Your task to perform on an android device: toggle show notifications on the lock screen Image 0: 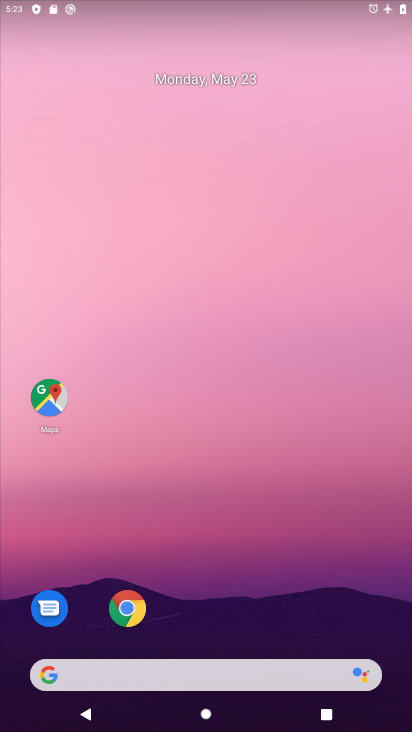
Step 0: drag from (199, 632) to (207, 184)
Your task to perform on an android device: toggle show notifications on the lock screen Image 1: 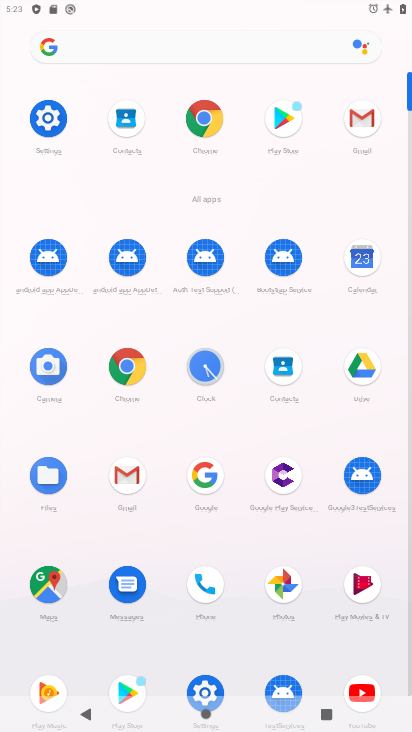
Step 1: click (39, 139)
Your task to perform on an android device: toggle show notifications on the lock screen Image 2: 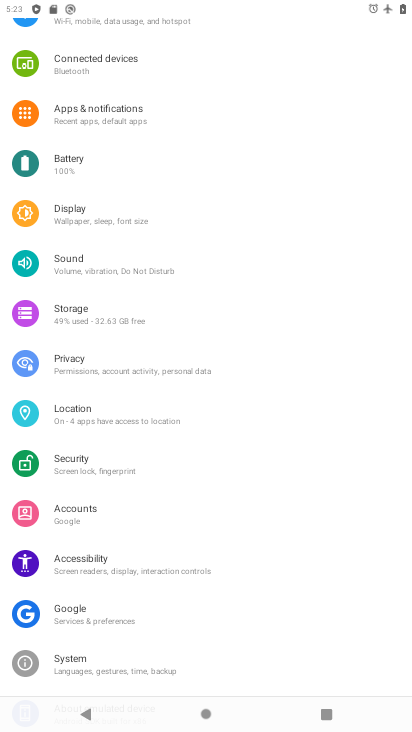
Step 2: drag from (120, 156) to (115, 410)
Your task to perform on an android device: toggle show notifications on the lock screen Image 3: 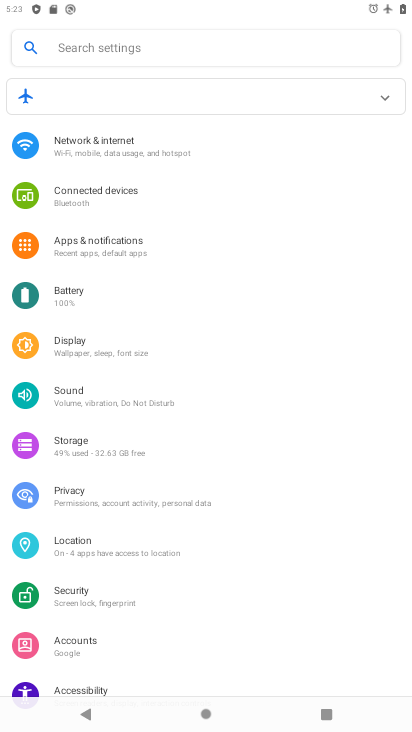
Step 3: click (93, 253)
Your task to perform on an android device: toggle show notifications on the lock screen Image 4: 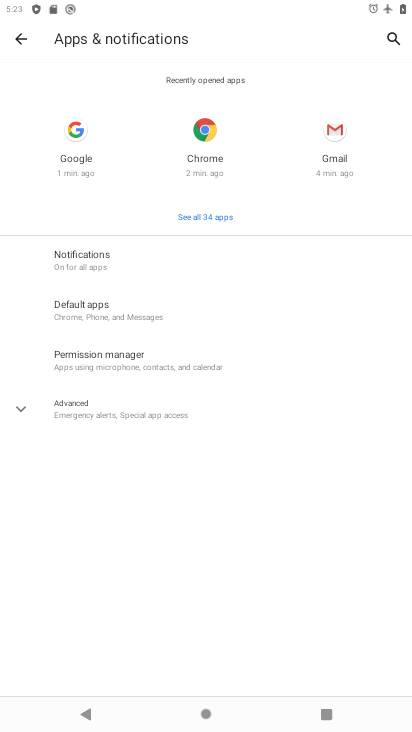
Step 4: click (85, 275)
Your task to perform on an android device: toggle show notifications on the lock screen Image 5: 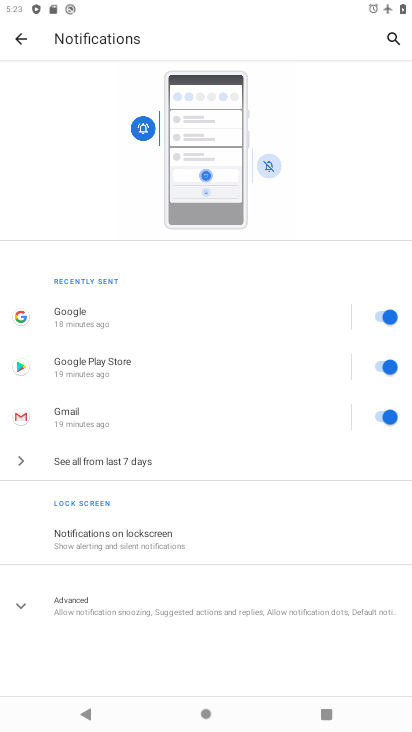
Step 5: click (140, 542)
Your task to perform on an android device: toggle show notifications on the lock screen Image 6: 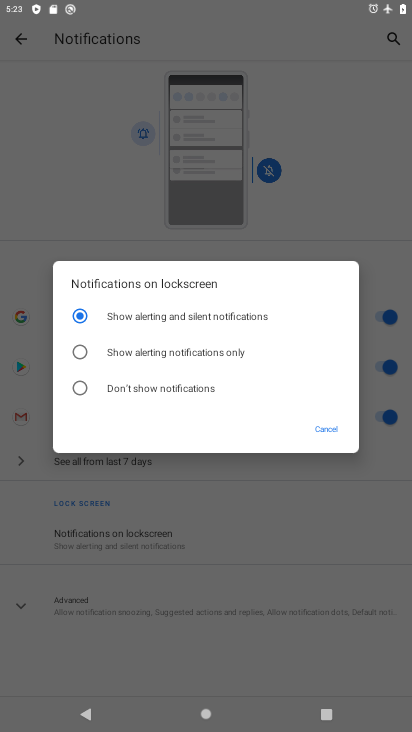
Step 6: click (77, 395)
Your task to perform on an android device: toggle show notifications on the lock screen Image 7: 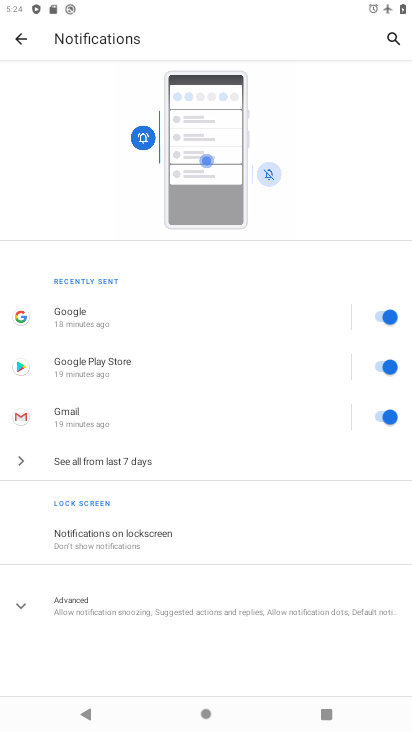
Step 7: task complete